Your task to perform on an android device: show emergency info Image 0: 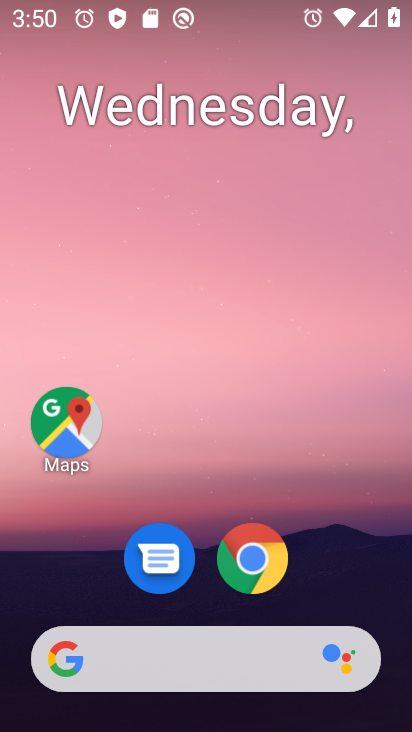
Step 0: drag from (164, 625) to (156, 255)
Your task to perform on an android device: show emergency info Image 1: 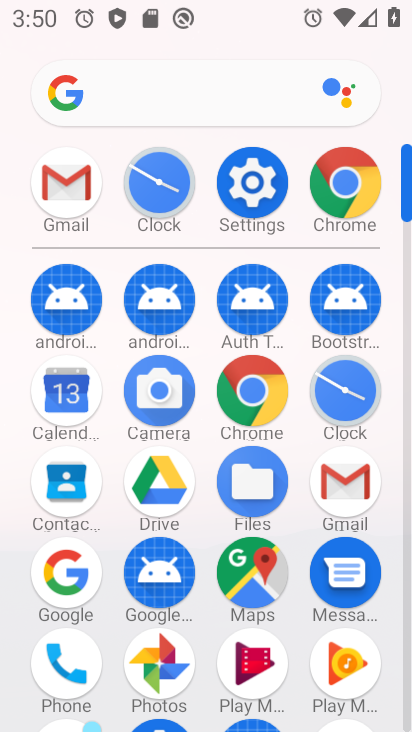
Step 1: click (248, 199)
Your task to perform on an android device: show emergency info Image 2: 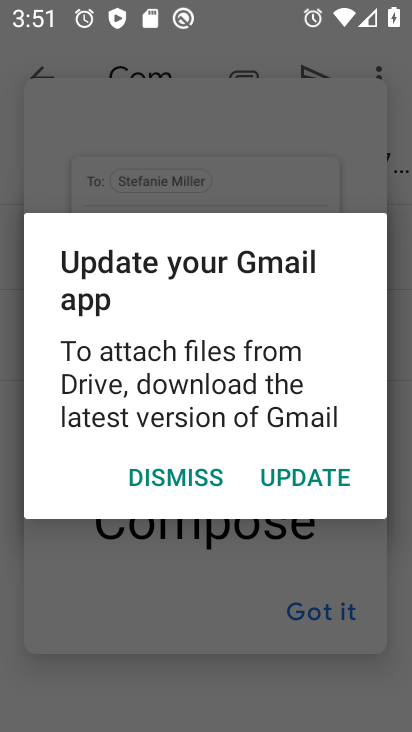
Step 2: click (204, 478)
Your task to perform on an android device: show emergency info Image 3: 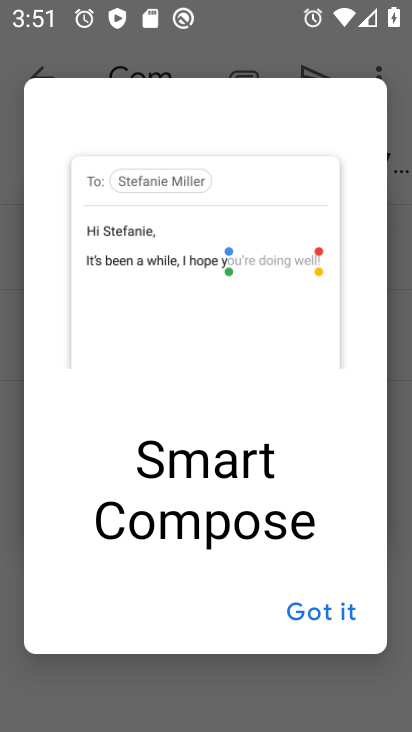
Step 3: press home button
Your task to perform on an android device: show emergency info Image 4: 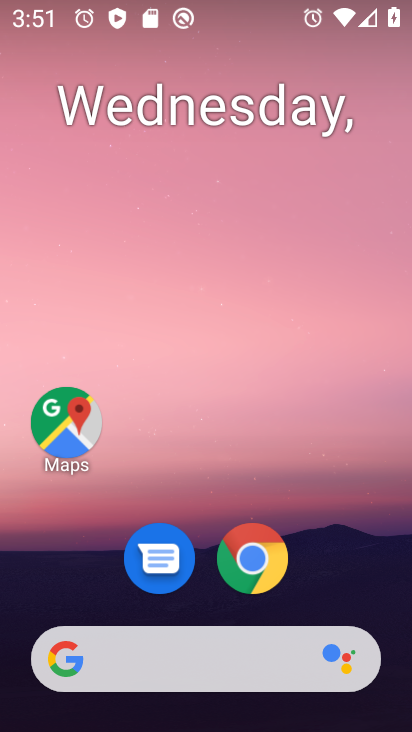
Step 4: drag from (185, 606) to (155, 228)
Your task to perform on an android device: show emergency info Image 5: 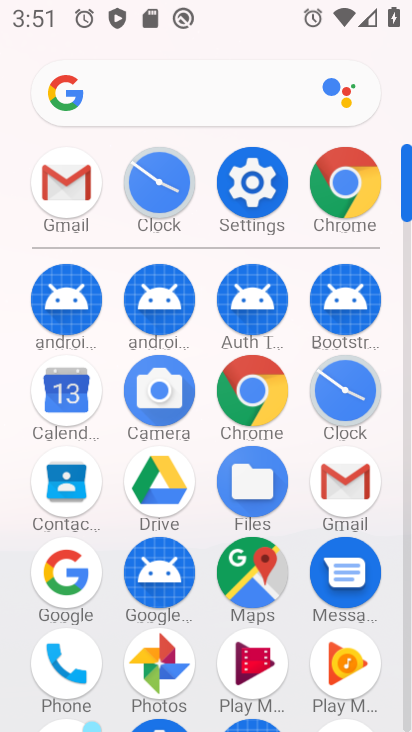
Step 5: click (255, 194)
Your task to perform on an android device: show emergency info Image 6: 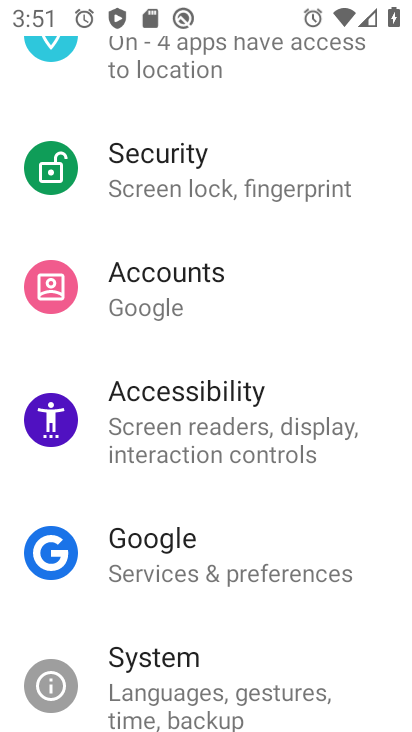
Step 6: drag from (165, 704) to (165, 290)
Your task to perform on an android device: show emergency info Image 7: 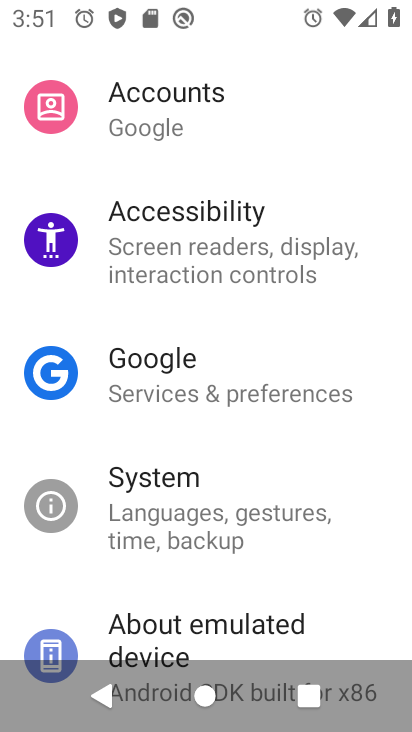
Step 7: drag from (156, 632) to (156, 295)
Your task to perform on an android device: show emergency info Image 8: 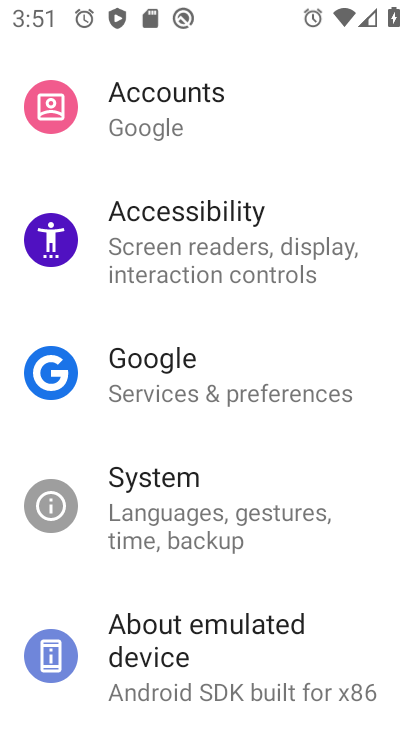
Step 8: click (159, 642)
Your task to perform on an android device: show emergency info Image 9: 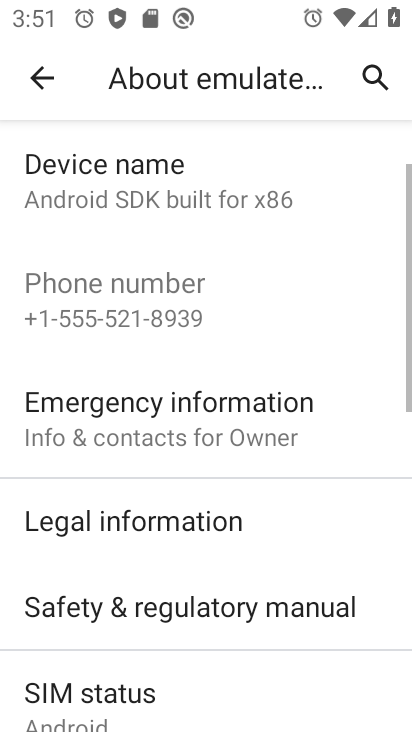
Step 9: click (132, 423)
Your task to perform on an android device: show emergency info Image 10: 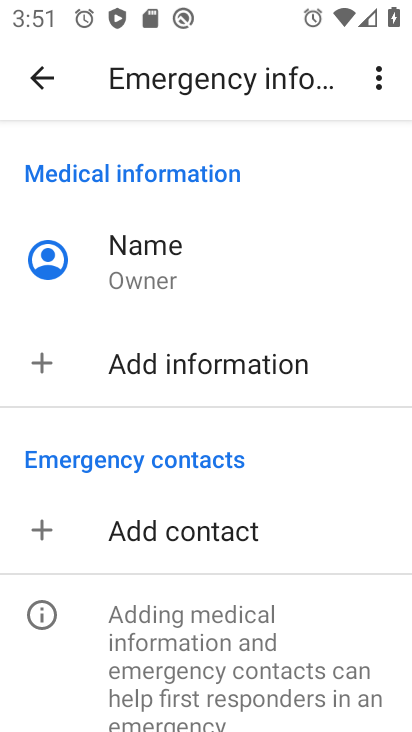
Step 10: task complete